Your task to perform on an android device: Open Wikipedia Image 0: 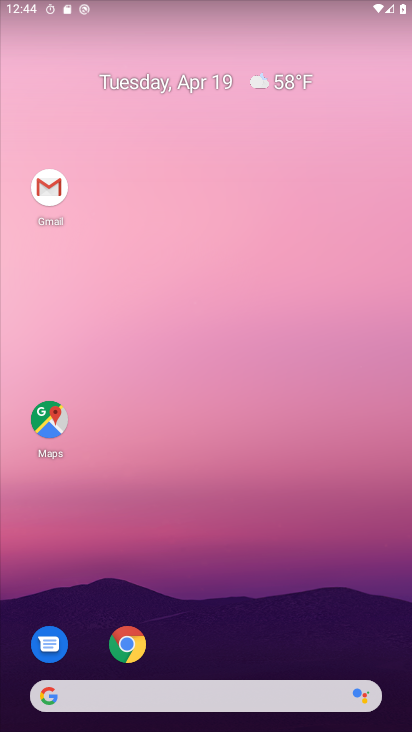
Step 0: click (138, 638)
Your task to perform on an android device: Open Wikipedia Image 1: 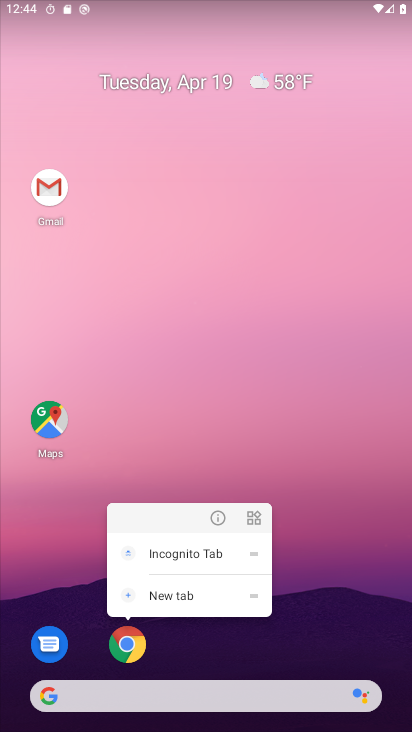
Step 1: click (113, 654)
Your task to perform on an android device: Open Wikipedia Image 2: 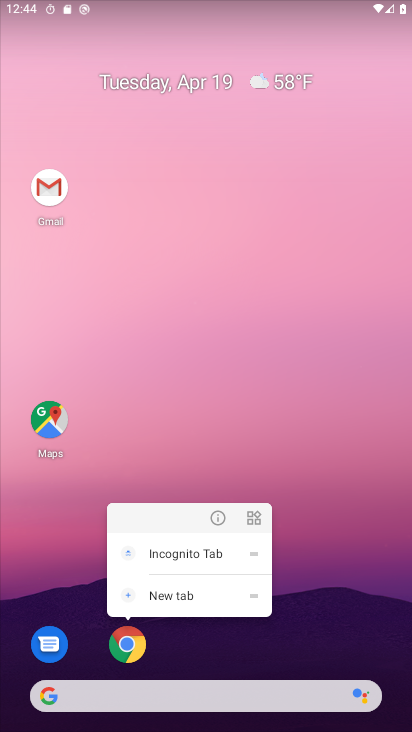
Step 2: click (132, 649)
Your task to perform on an android device: Open Wikipedia Image 3: 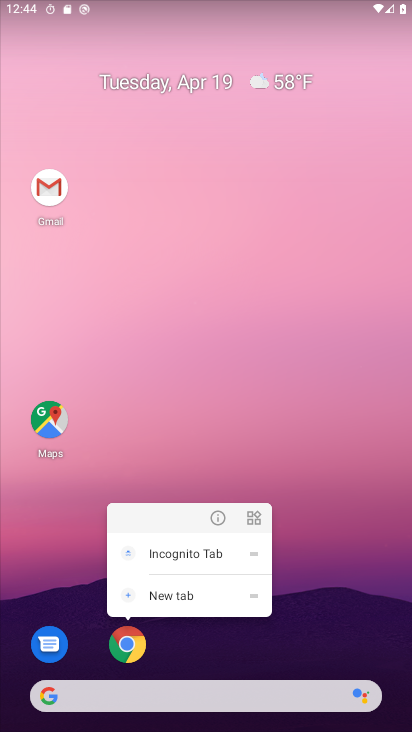
Step 3: click (129, 647)
Your task to perform on an android device: Open Wikipedia Image 4: 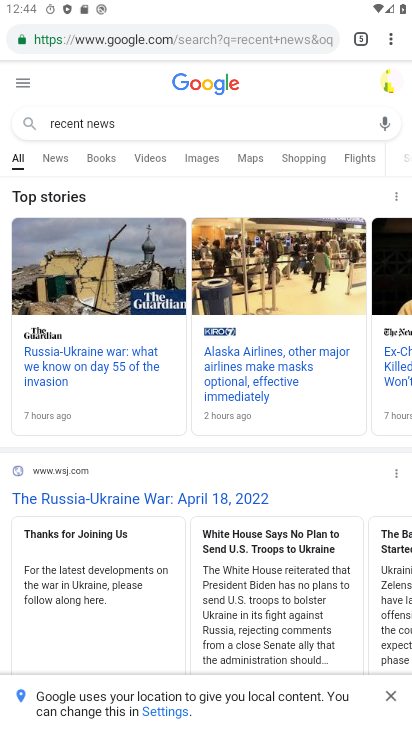
Step 4: click (354, 40)
Your task to perform on an android device: Open Wikipedia Image 5: 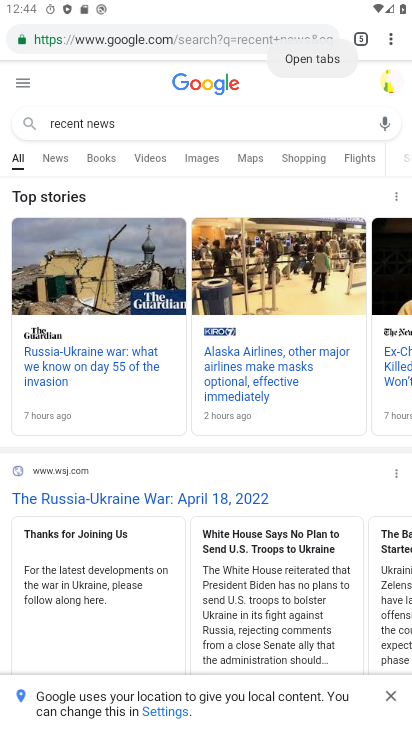
Step 5: click (359, 37)
Your task to perform on an android device: Open Wikipedia Image 6: 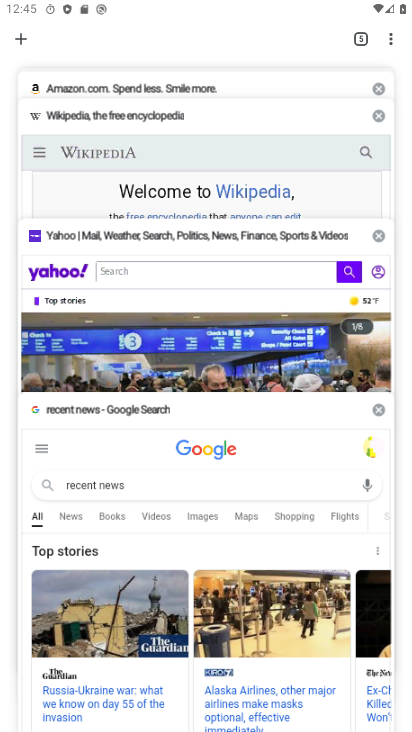
Step 6: click (199, 154)
Your task to perform on an android device: Open Wikipedia Image 7: 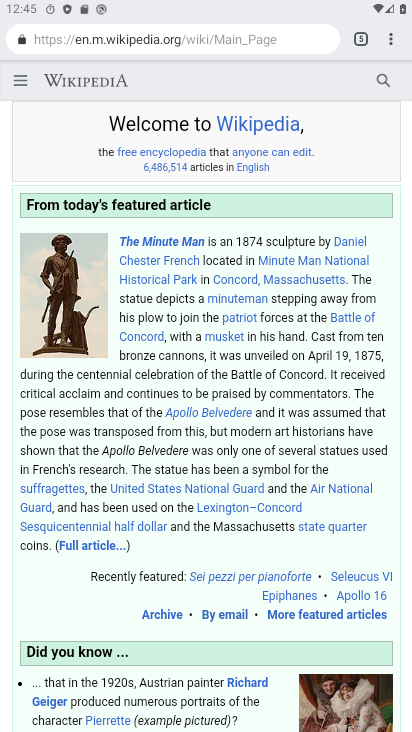
Step 7: task complete